Your task to perform on an android device: Show me recent news Image 0: 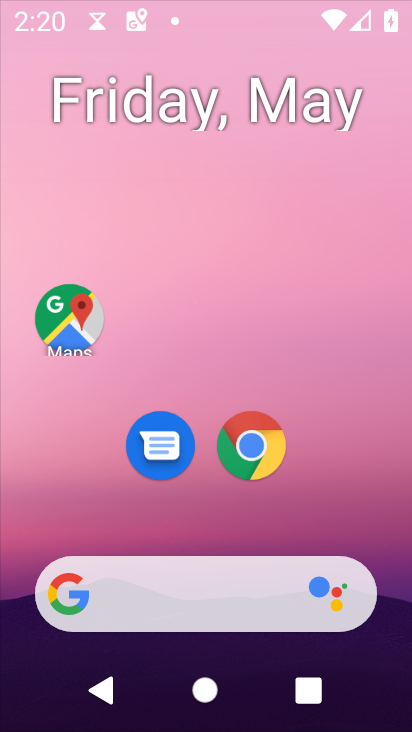
Step 0: press home button
Your task to perform on an android device: Show me recent news Image 1: 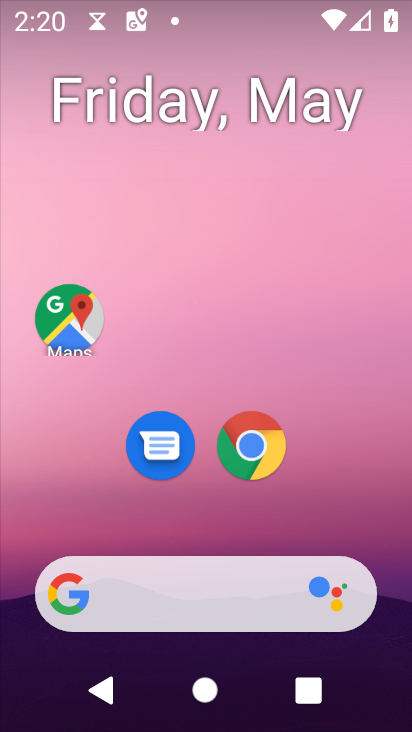
Step 1: task complete